Your task to perform on an android device: Search for the best rated headphones on AliExpress. Image 0: 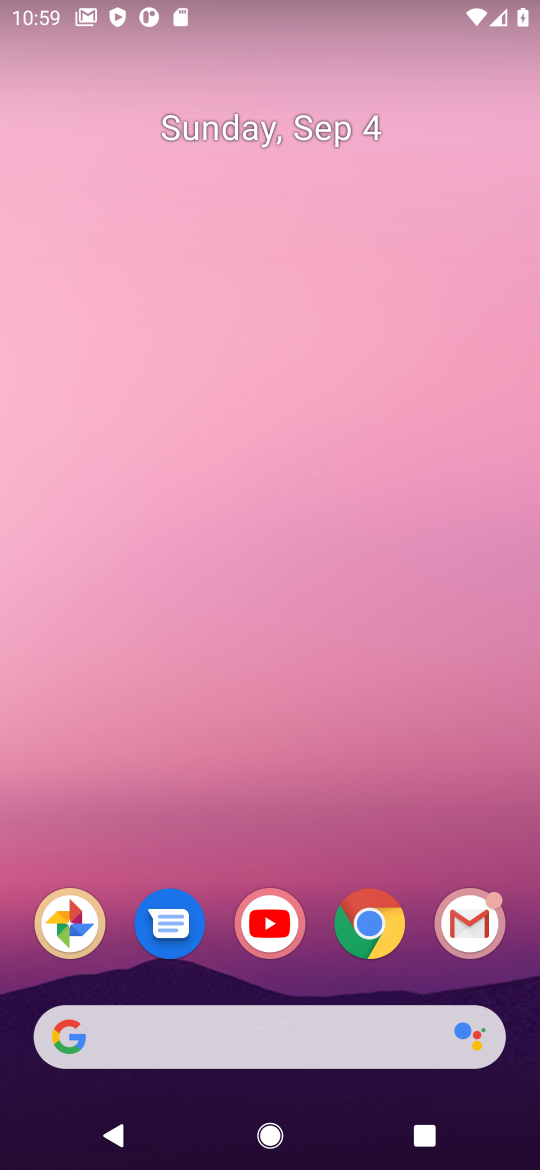
Step 0: click (376, 917)
Your task to perform on an android device: Search for the best rated headphones on AliExpress. Image 1: 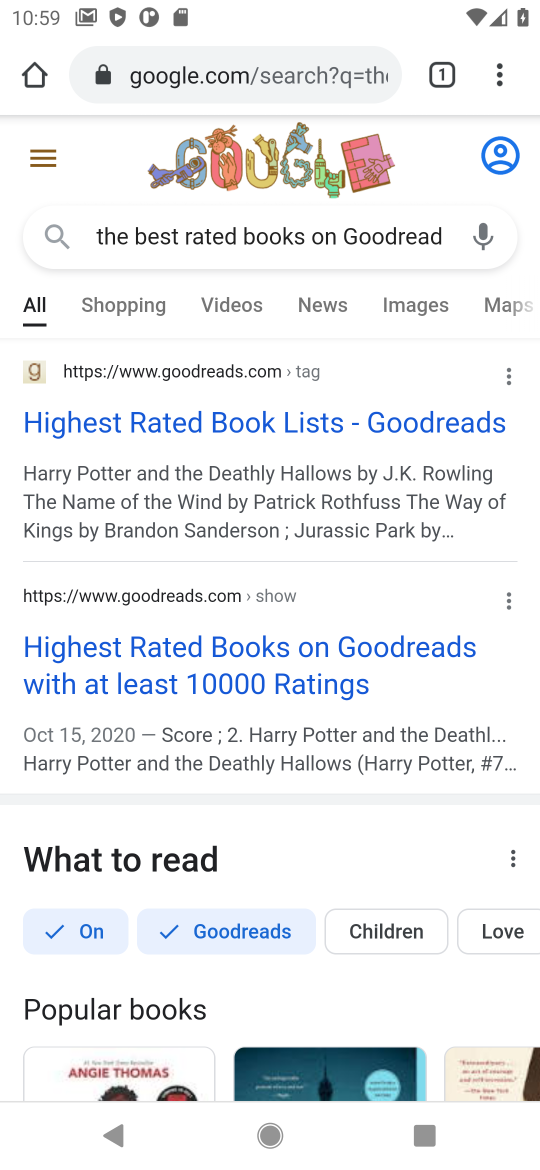
Step 1: click (219, 70)
Your task to perform on an android device: Search for the best rated headphones on AliExpress. Image 2: 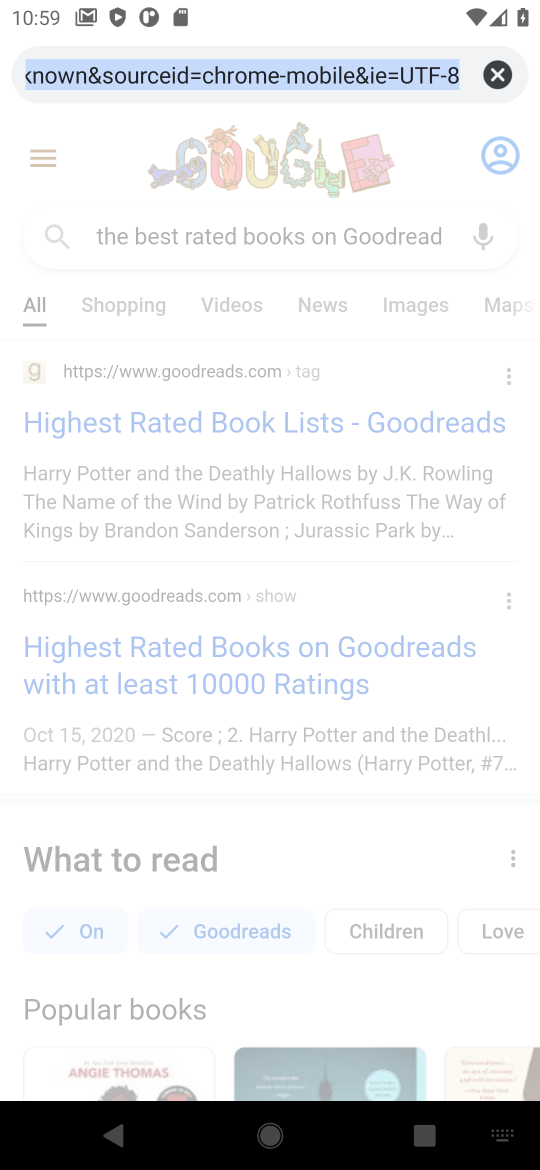
Step 2: click (498, 83)
Your task to perform on an android device: Search for the best rated headphones on AliExpress. Image 3: 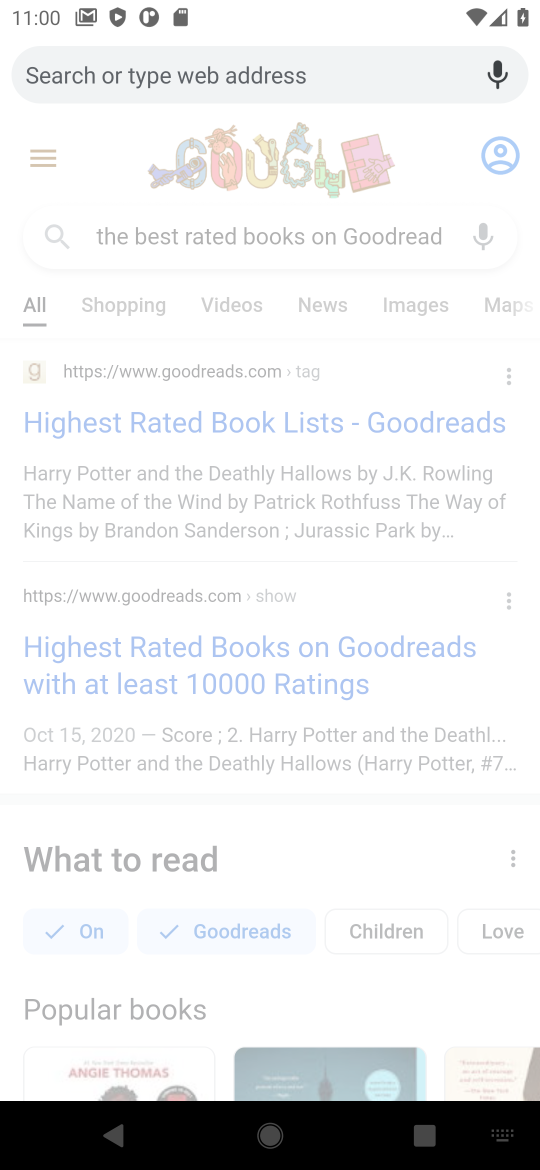
Step 3: type "the best rated headphones on AliExpress."
Your task to perform on an android device: Search for the best rated headphones on AliExpress. Image 4: 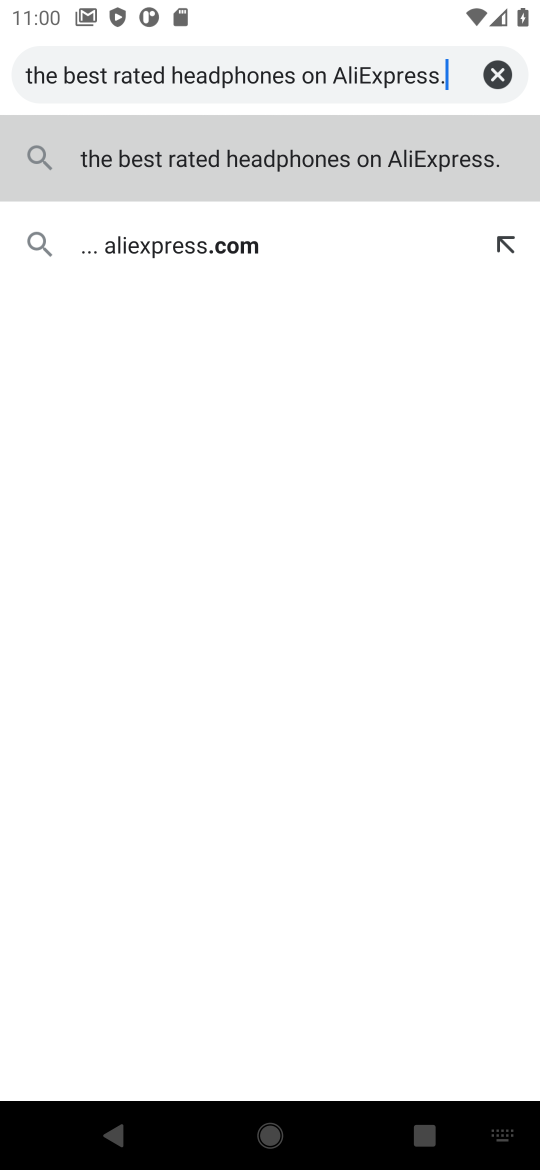
Step 4: click (364, 174)
Your task to perform on an android device: Search for the best rated headphones on AliExpress. Image 5: 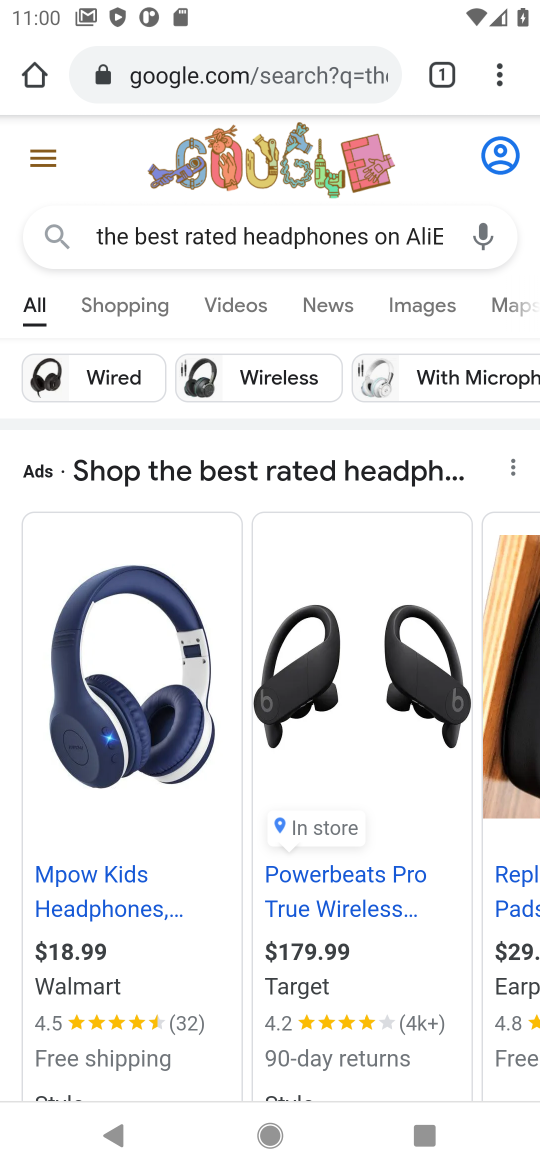
Step 5: task complete